Your task to perform on an android device: What's the weather going to be tomorrow? Image 0: 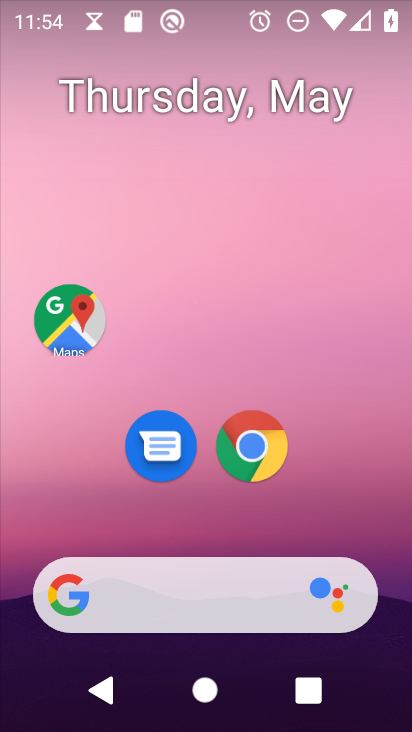
Step 0: drag from (281, 638) to (310, 168)
Your task to perform on an android device: What's the weather going to be tomorrow? Image 1: 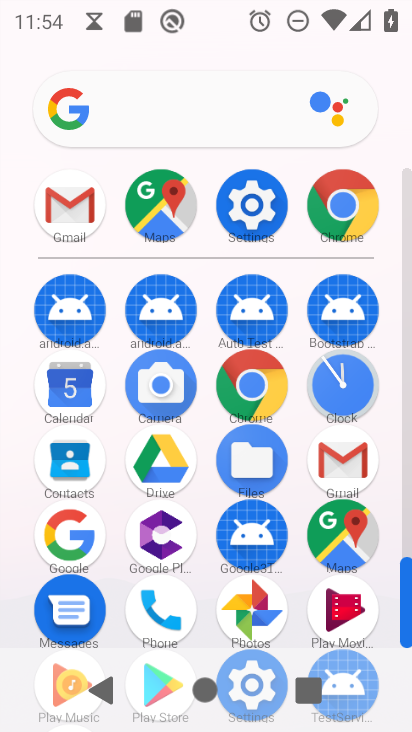
Step 1: click (197, 121)
Your task to perform on an android device: What's the weather going to be tomorrow? Image 2: 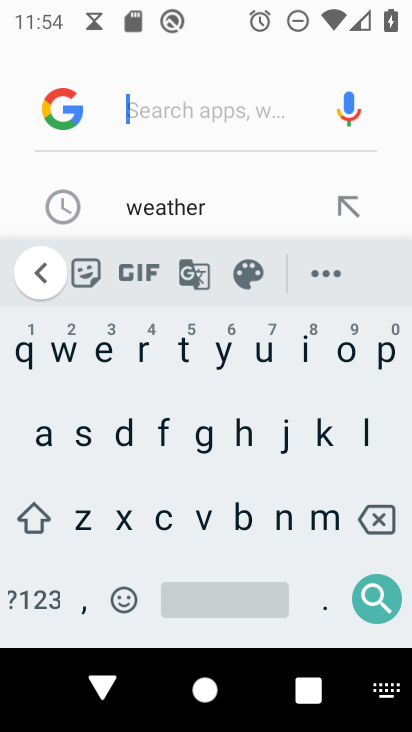
Step 2: click (172, 216)
Your task to perform on an android device: What's the weather going to be tomorrow? Image 3: 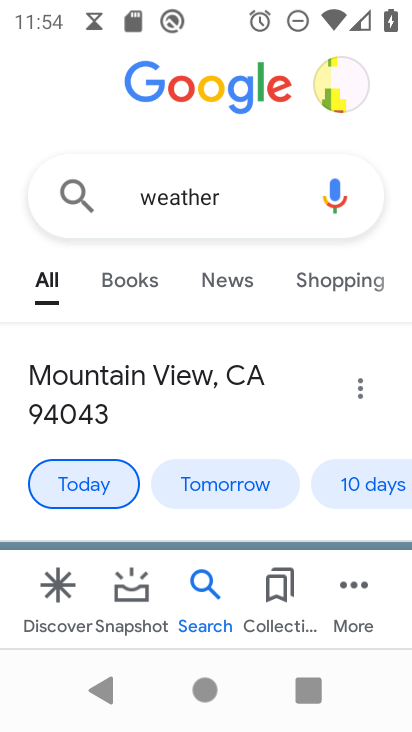
Step 3: click (197, 486)
Your task to perform on an android device: What's the weather going to be tomorrow? Image 4: 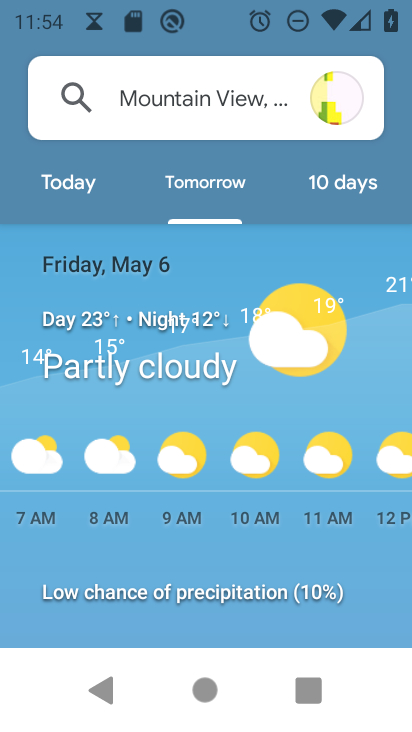
Step 4: task complete